Your task to perform on an android device: Go to sound settings Image 0: 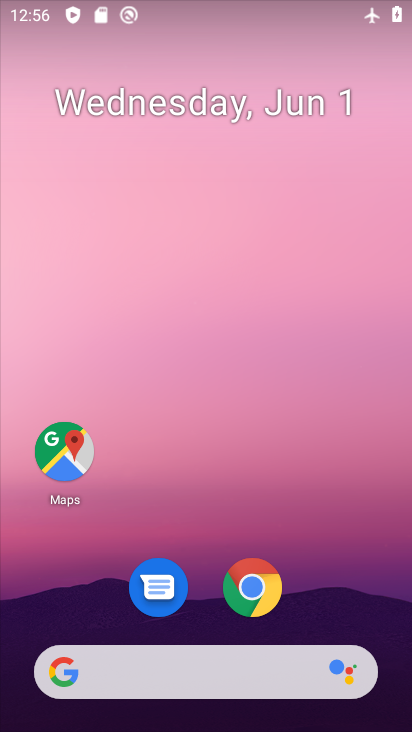
Step 0: drag from (269, 488) to (229, 67)
Your task to perform on an android device: Go to sound settings Image 1: 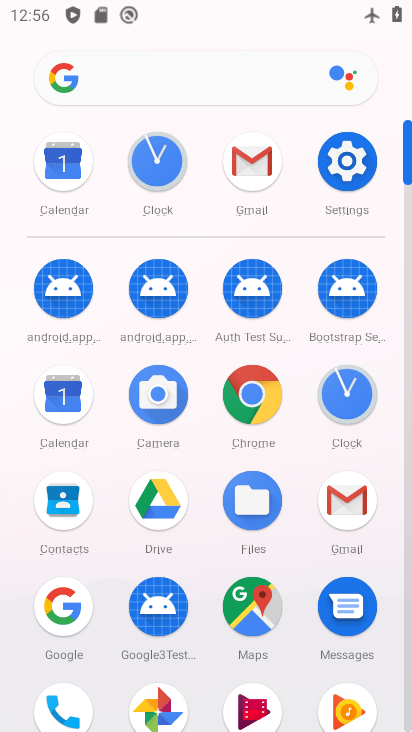
Step 1: click (350, 174)
Your task to perform on an android device: Go to sound settings Image 2: 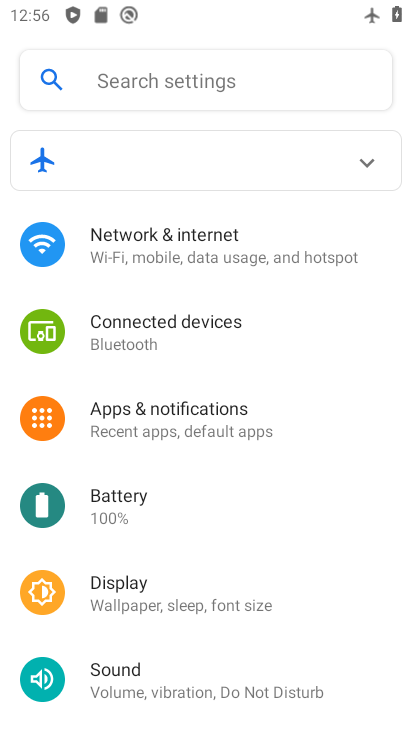
Step 2: drag from (213, 433) to (196, 301)
Your task to perform on an android device: Go to sound settings Image 3: 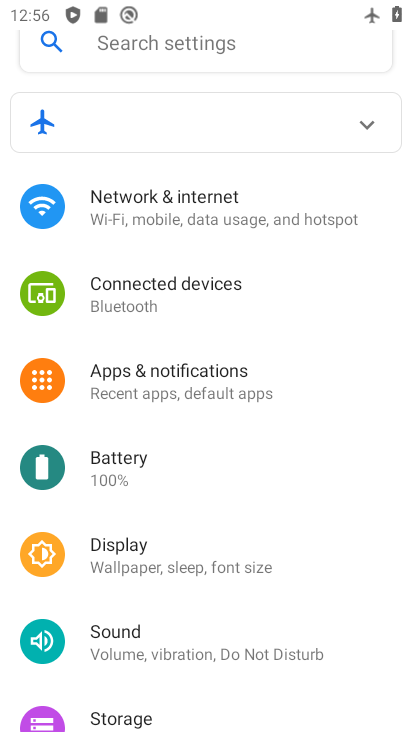
Step 3: click (131, 629)
Your task to perform on an android device: Go to sound settings Image 4: 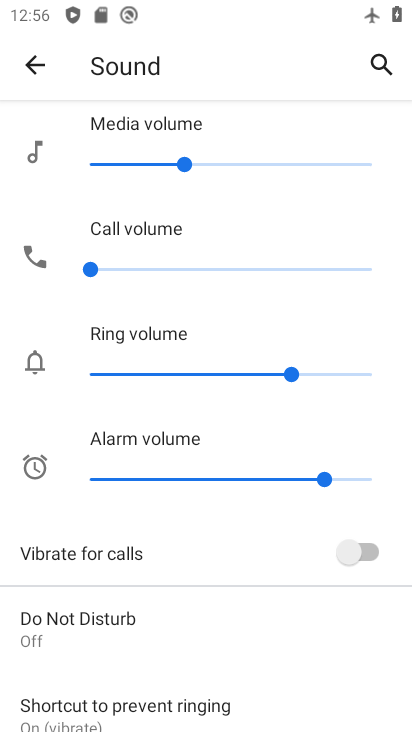
Step 4: click (208, 339)
Your task to perform on an android device: Go to sound settings Image 5: 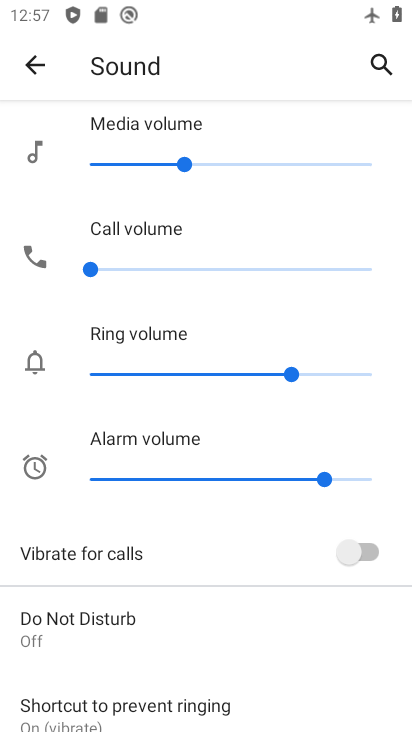
Step 5: task complete